Your task to perform on an android device: turn off location Image 0: 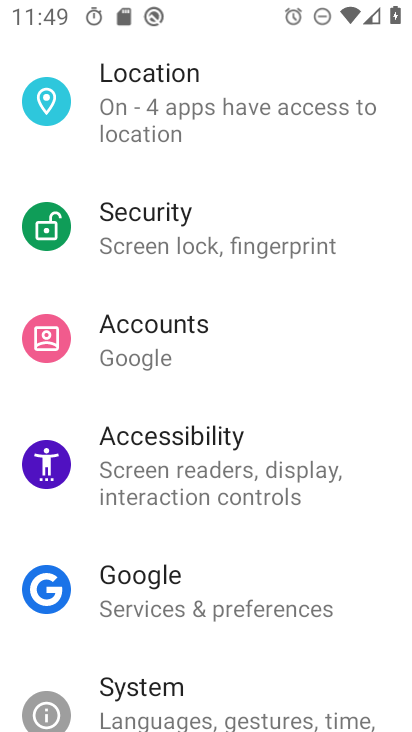
Step 0: click (159, 108)
Your task to perform on an android device: turn off location Image 1: 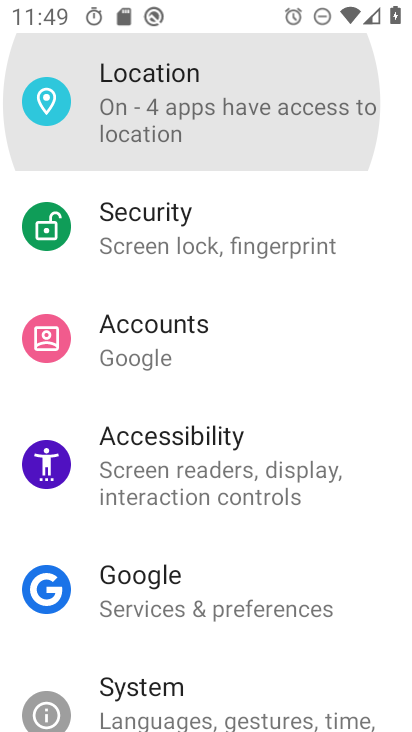
Step 1: click (158, 109)
Your task to perform on an android device: turn off location Image 2: 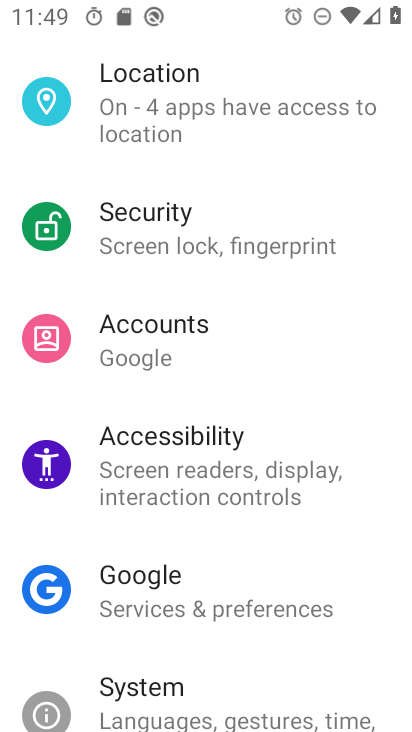
Step 2: click (159, 111)
Your task to perform on an android device: turn off location Image 3: 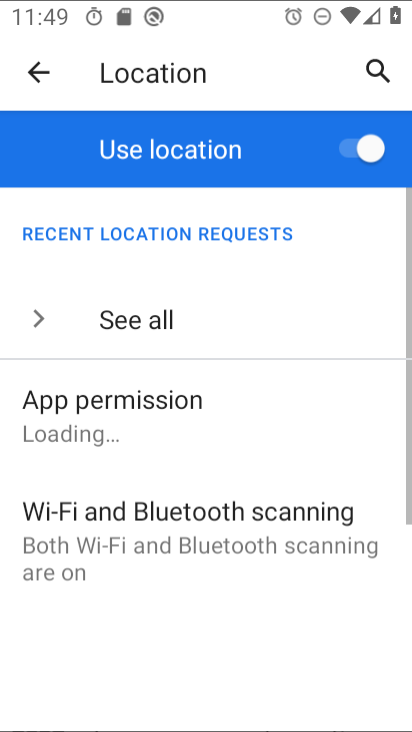
Step 3: click (161, 115)
Your task to perform on an android device: turn off location Image 4: 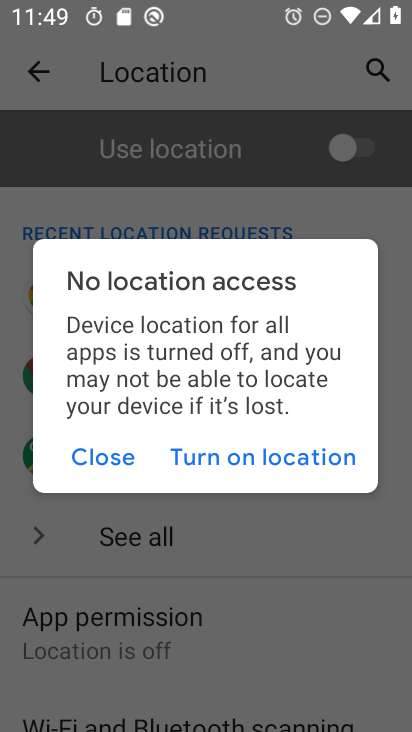
Step 4: click (71, 452)
Your task to perform on an android device: turn off location Image 5: 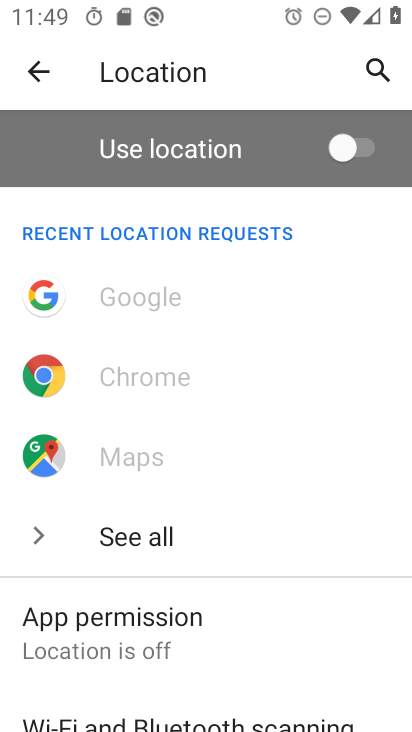
Step 5: task complete